Your task to perform on an android device: Show me the alarms in the clock app Image 0: 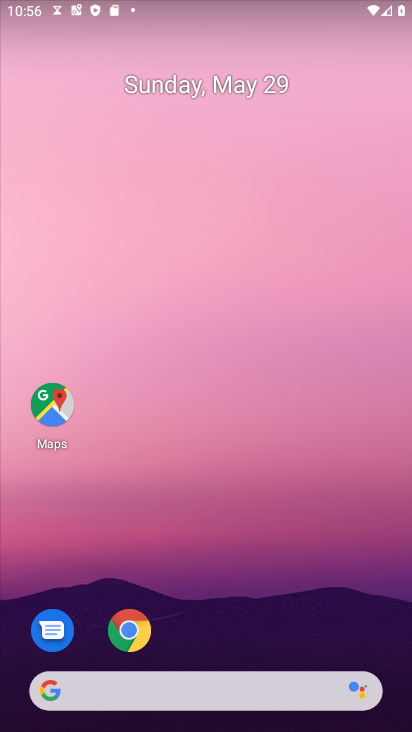
Step 0: drag from (233, 558) to (253, 53)
Your task to perform on an android device: Show me the alarms in the clock app Image 1: 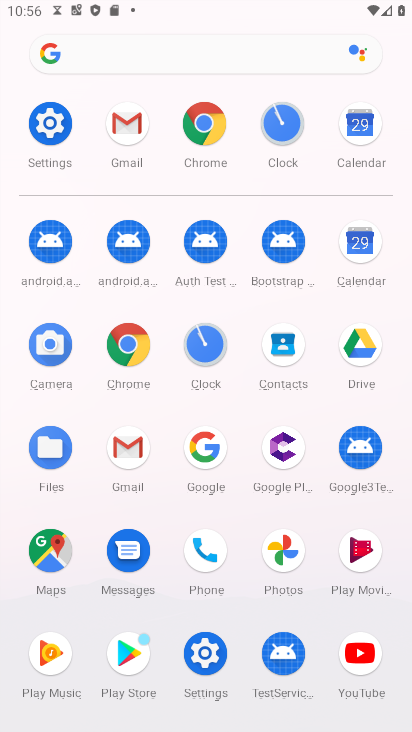
Step 1: click (211, 336)
Your task to perform on an android device: Show me the alarms in the clock app Image 2: 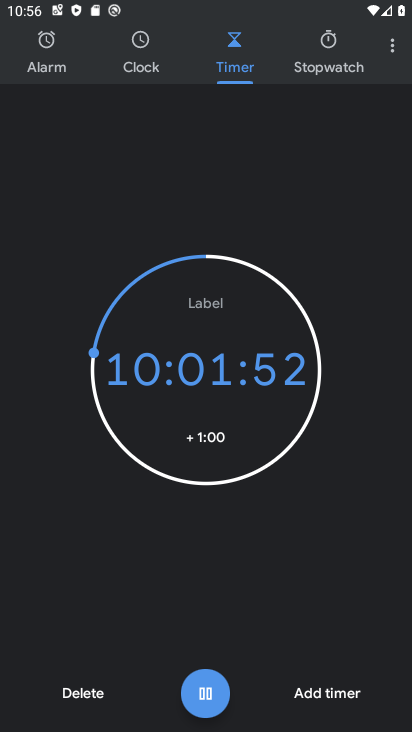
Step 2: click (58, 46)
Your task to perform on an android device: Show me the alarms in the clock app Image 3: 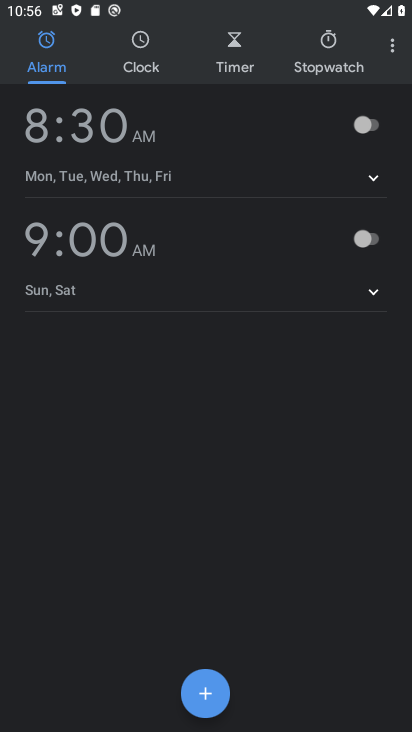
Step 3: task complete